Your task to perform on an android device: What's the weather? Image 0: 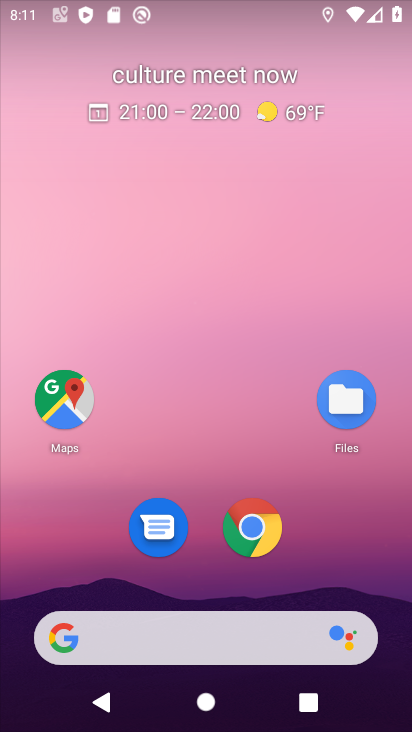
Step 0: drag from (231, 573) to (261, 113)
Your task to perform on an android device: What's the weather? Image 1: 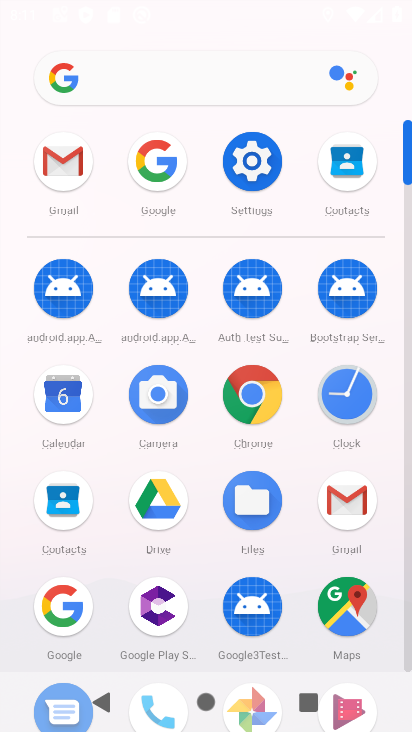
Step 1: click (167, 155)
Your task to perform on an android device: What's the weather? Image 2: 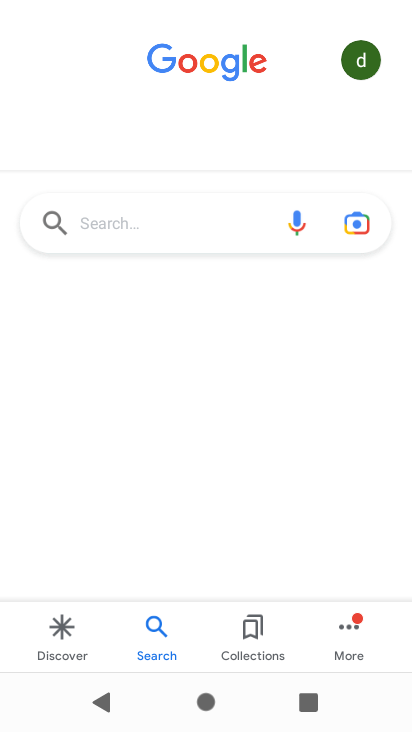
Step 2: click (178, 217)
Your task to perform on an android device: What's the weather? Image 3: 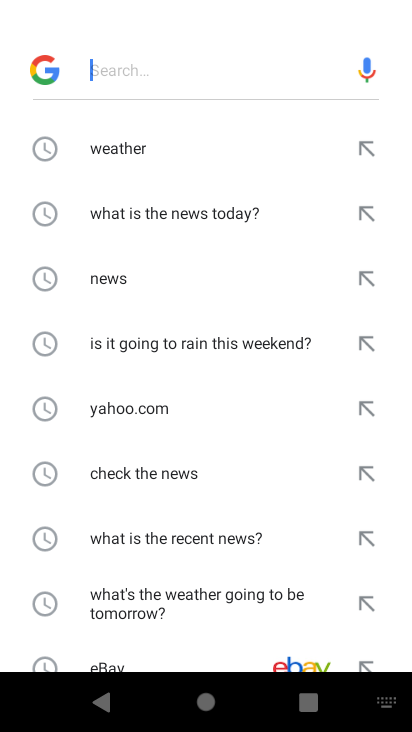
Step 3: click (138, 150)
Your task to perform on an android device: What's the weather? Image 4: 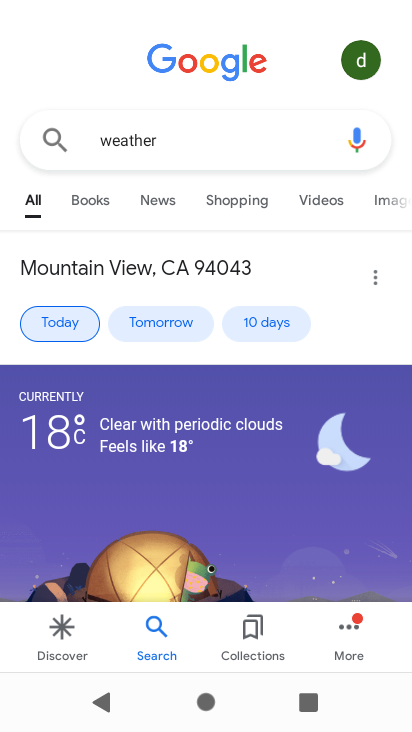
Step 4: task complete